Your task to perform on an android device: What's the weather today? Image 0: 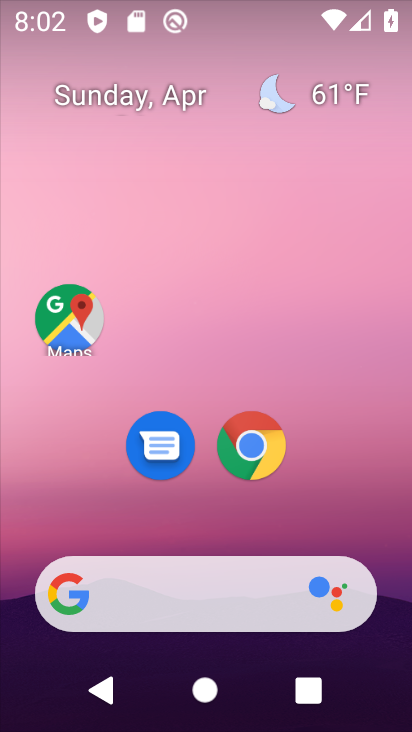
Step 0: drag from (196, 528) to (221, 129)
Your task to perform on an android device: What's the weather today? Image 1: 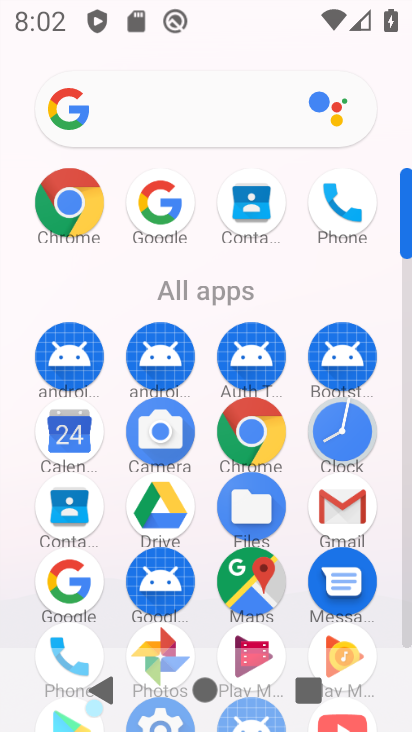
Step 1: click (154, 217)
Your task to perform on an android device: What's the weather today? Image 2: 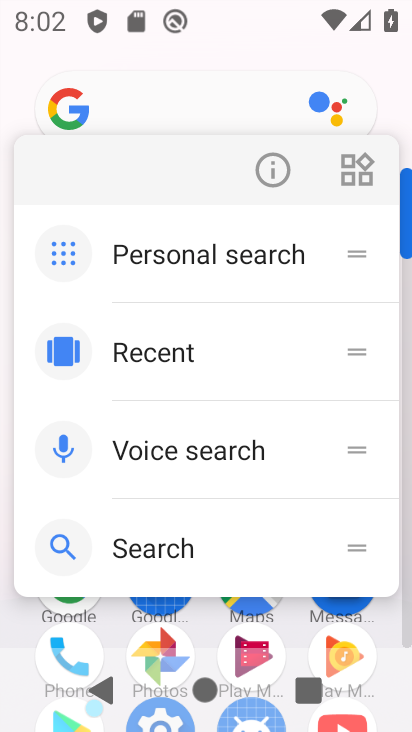
Step 2: click (172, 55)
Your task to perform on an android device: What's the weather today? Image 3: 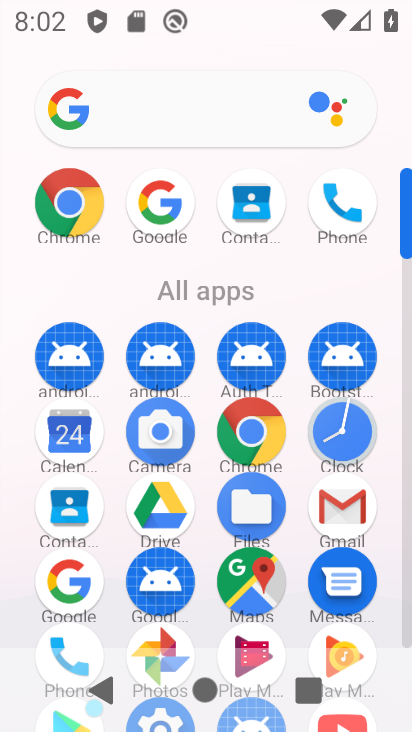
Step 3: click (137, 222)
Your task to perform on an android device: What's the weather today? Image 4: 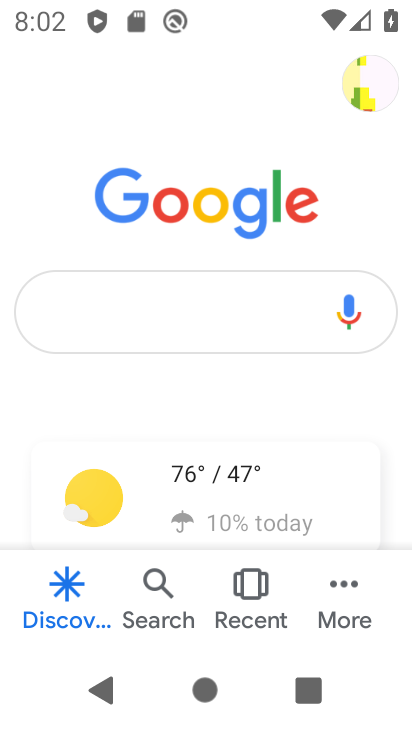
Step 4: click (175, 480)
Your task to perform on an android device: What's the weather today? Image 5: 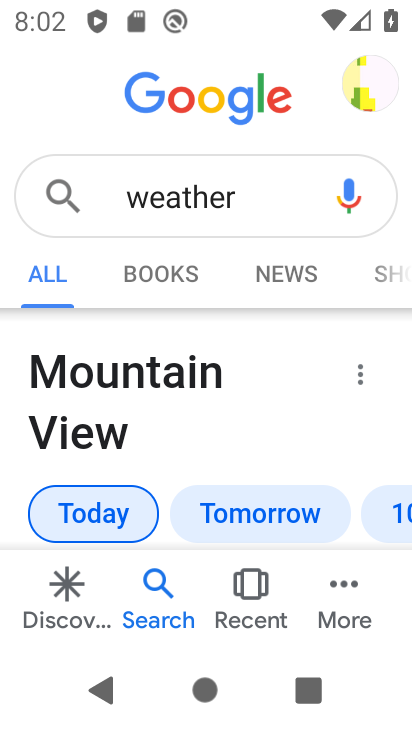
Step 5: task complete